Your task to perform on an android device: toggle javascript in the chrome app Image 0: 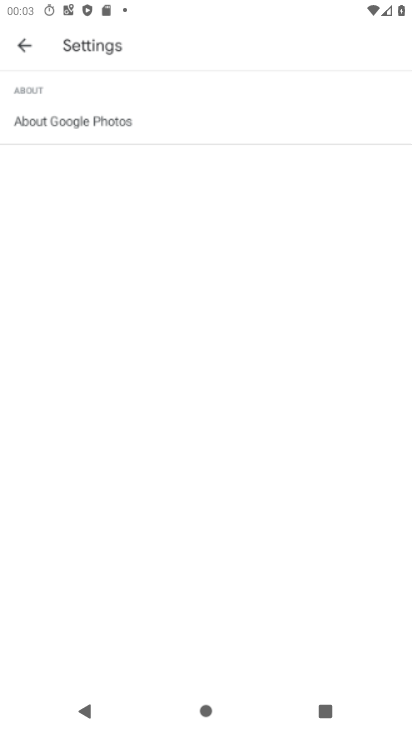
Step 0: press home button
Your task to perform on an android device: toggle javascript in the chrome app Image 1: 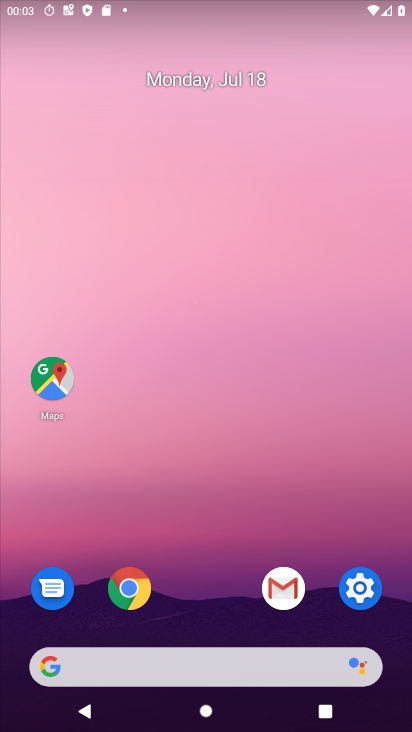
Step 1: click (148, 598)
Your task to perform on an android device: toggle javascript in the chrome app Image 2: 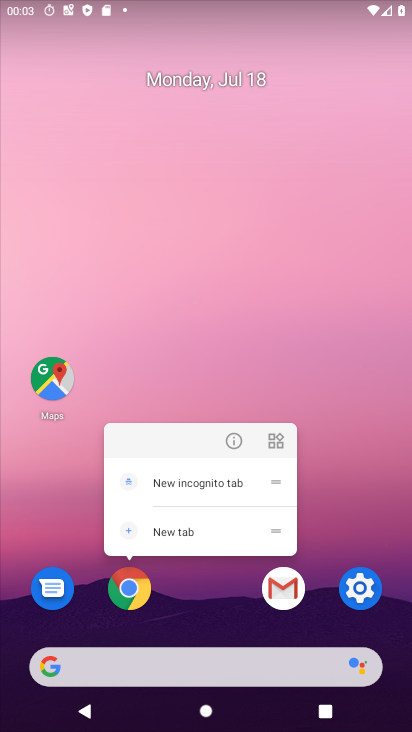
Step 2: click (135, 611)
Your task to perform on an android device: toggle javascript in the chrome app Image 3: 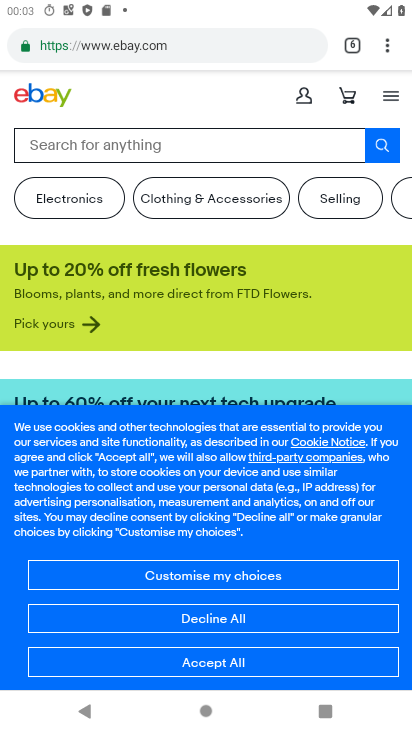
Step 3: click (389, 51)
Your task to perform on an android device: toggle javascript in the chrome app Image 4: 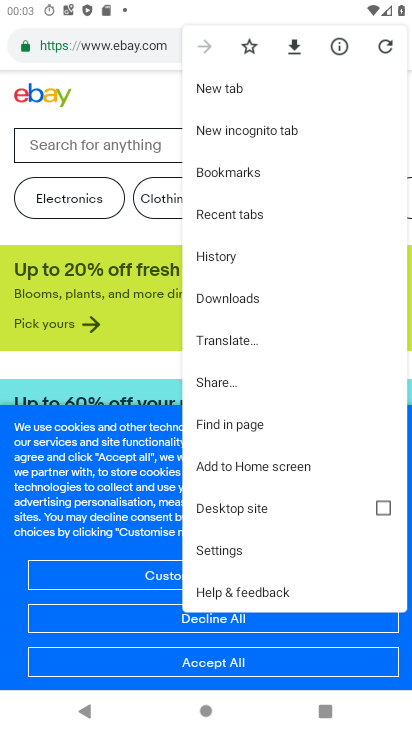
Step 4: click (227, 553)
Your task to perform on an android device: toggle javascript in the chrome app Image 5: 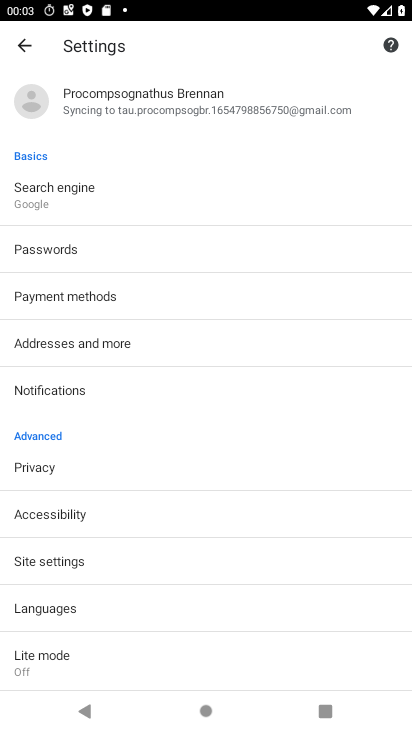
Step 5: click (71, 564)
Your task to perform on an android device: toggle javascript in the chrome app Image 6: 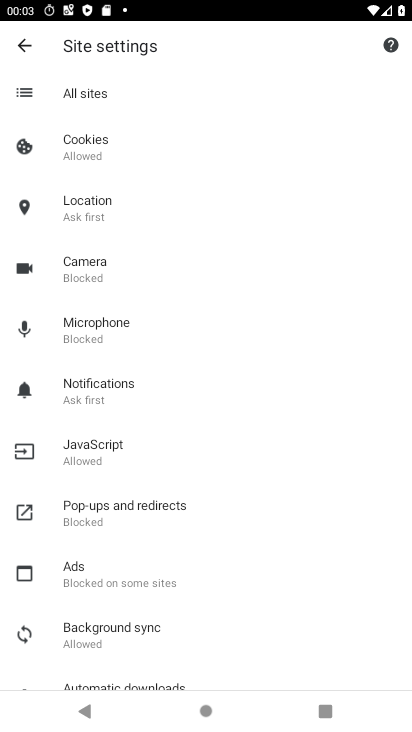
Step 6: click (94, 459)
Your task to perform on an android device: toggle javascript in the chrome app Image 7: 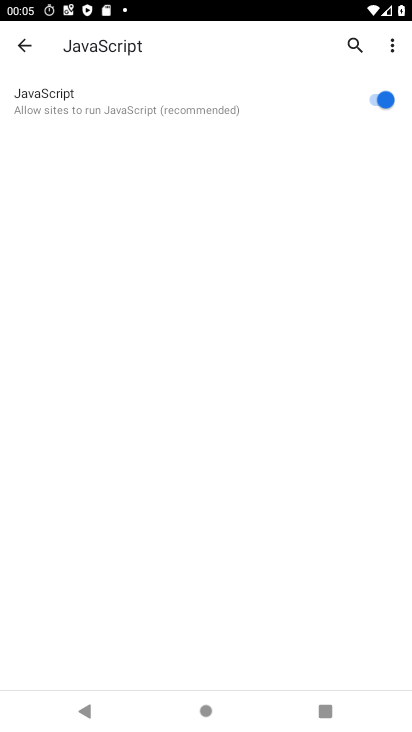
Step 7: task complete